Your task to perform on an android device: Search for pizza restaurants on Maps Image 0: 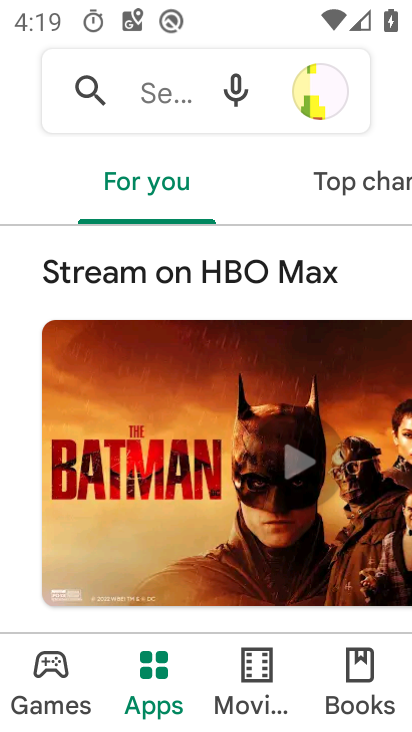
Step 0: press back button
Your task to perform on an android device: Search for pizza restaurants on Maps Image 1: 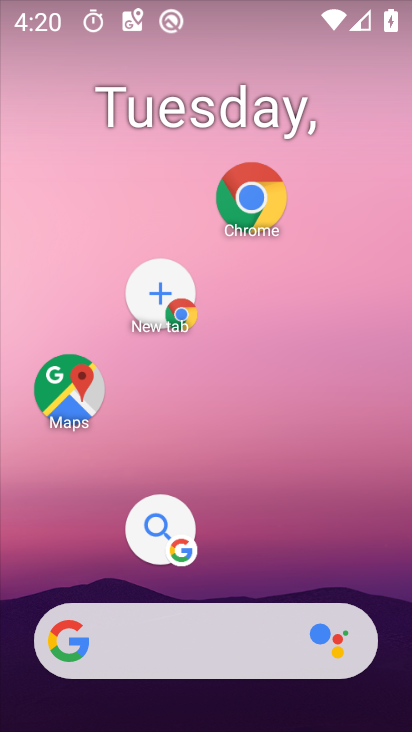
Step 1: drag from (146, 450) to (136, 258)
Your task to perform on an android device: Search for pizza restaurants on Maps Image 2: 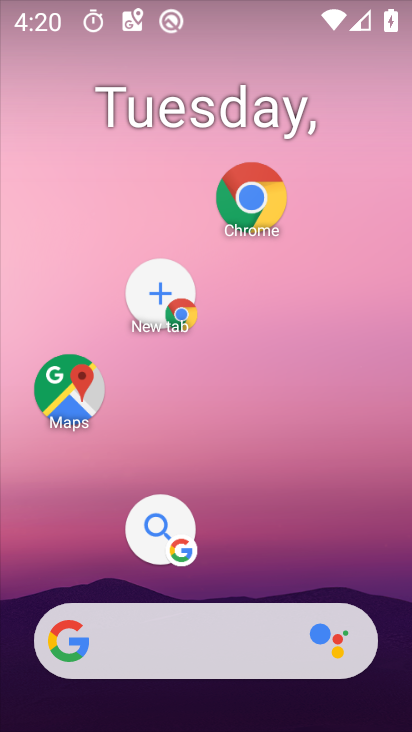
Step 2: click (61, 374)
Your task to perform on an android device: Search for pizza restaurants on Maps Image 3: 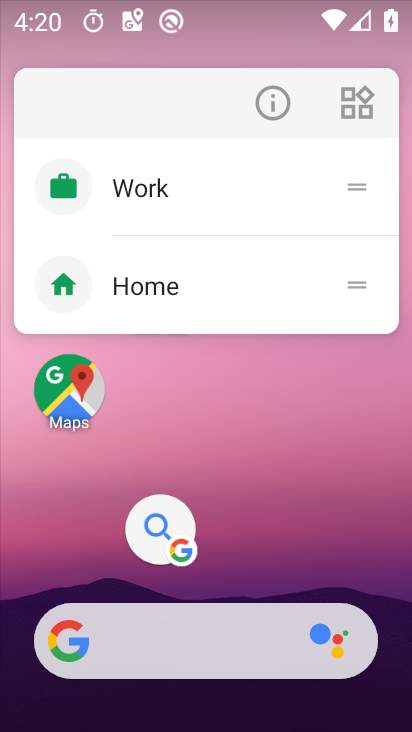
Step 3: click (67, 398)
Your task to perform on an android device: Search for pizza restaurants on Maps Image 4: 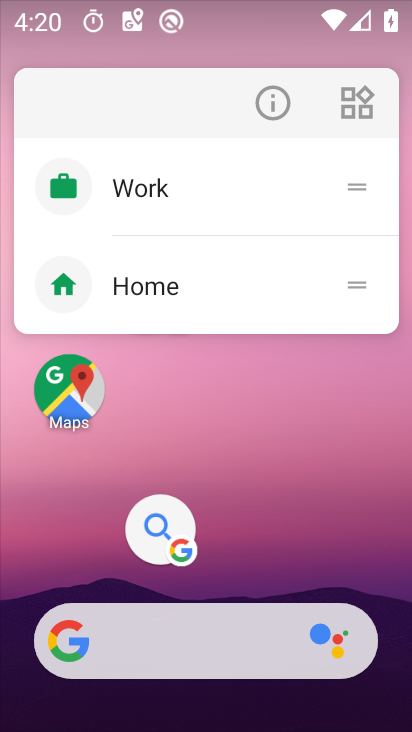
Step 4: click (68, 399)
Your task to perform on an android device: Search for pizza restaurants on Maps Image 5: 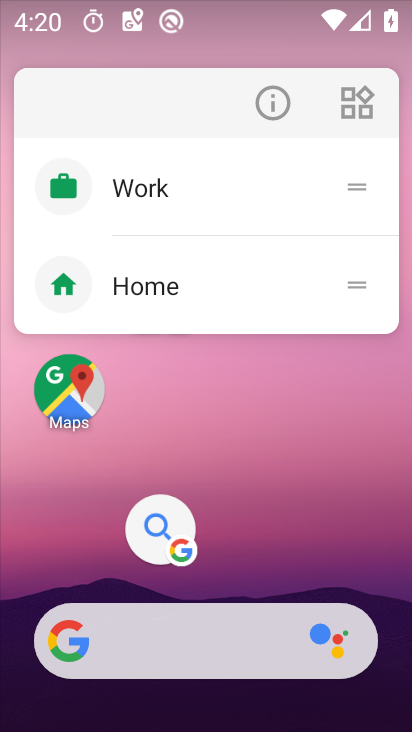
Step 5: click (61, 384)
Your task to perform on an android device: Search for pizza restaurants on Maps Image 6: 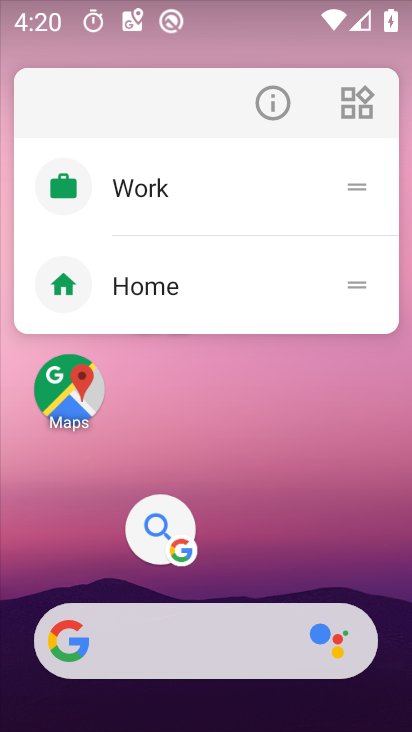
Step 6: click (71, 395)
Your task to perform on an android device: Search for pizza restaurants on Maps Image 7: 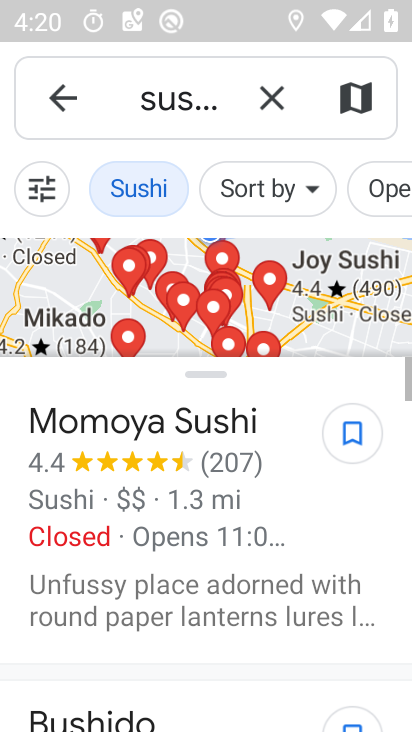
Step 7: click (270, 104)
Your task to perform on an android device: Search for pizza restaurants on Maps Image 8: 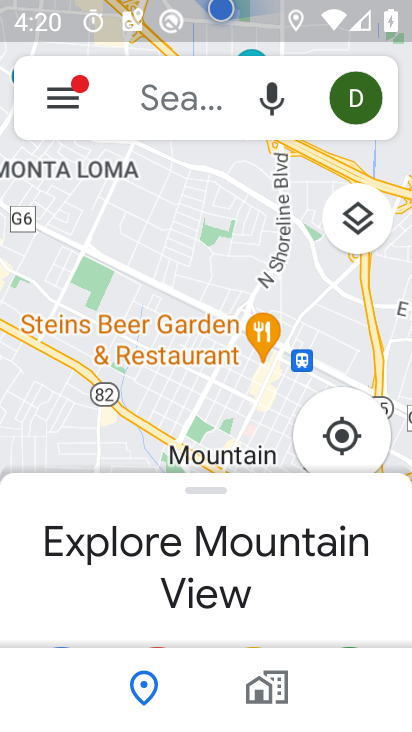
Step 8: click (199, 98)
Your task to perform on an android device: Search for pizza restaurants on Maps Image 9: 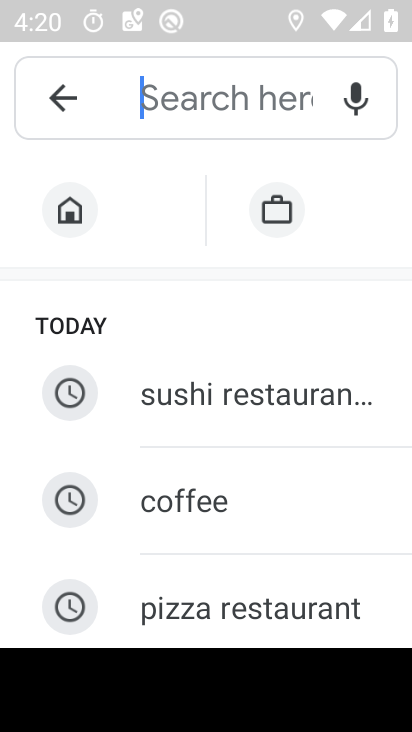
Step 9: click (216, 614)
Your task to perform on an android device: Search for pizza restaurants on Maps Image 10: 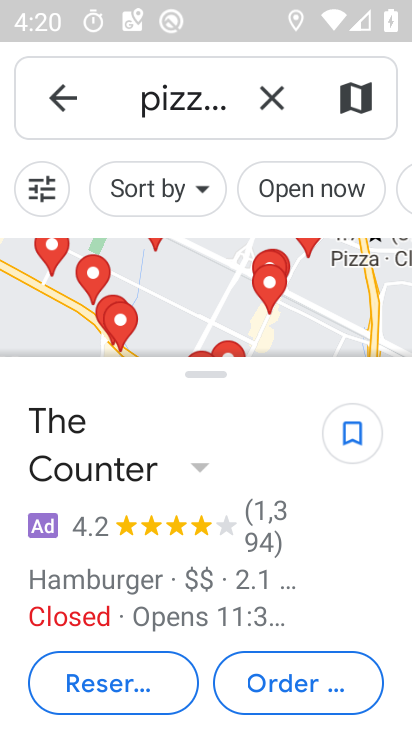
Step 10: task complete